Your task to perform on an android device: install app "Truecaller" Image 0: 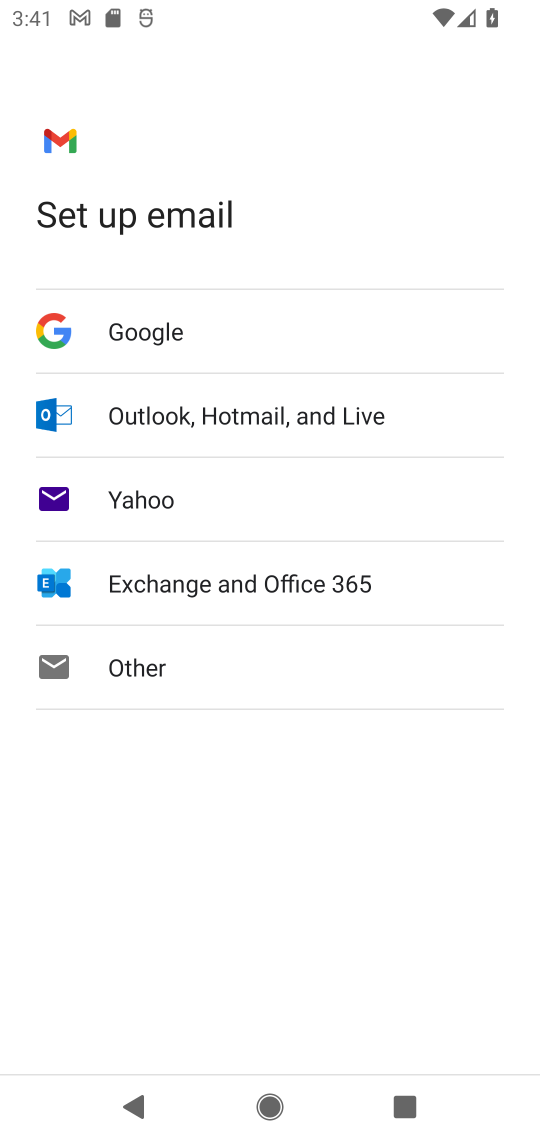
Step 0: press home button
Your task to perform on an android device: install app "Truecaller" Image 1: 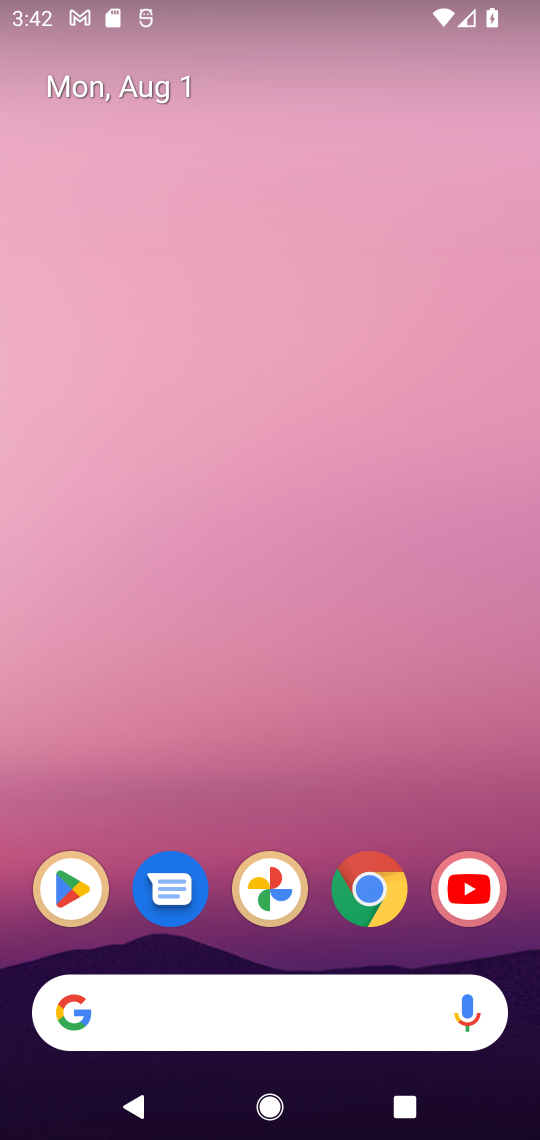
Step 1: click (82, 910)
Your task to perform on an android device: install app "Truecaller" Image 2: 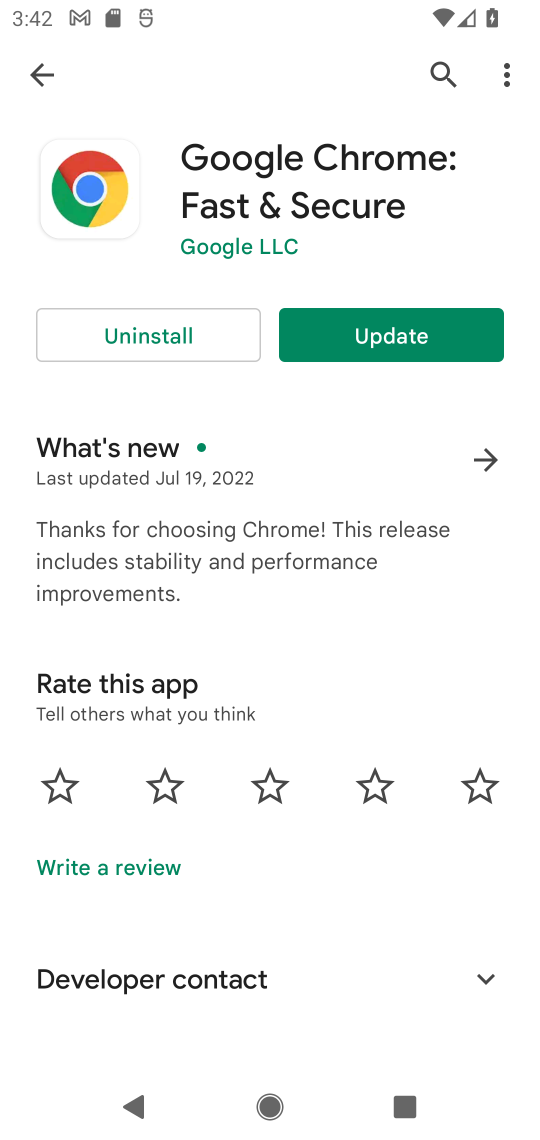
Step 2: click (434, 84)
Your task to perform on an android device: install app "Truecaller" Image 3: 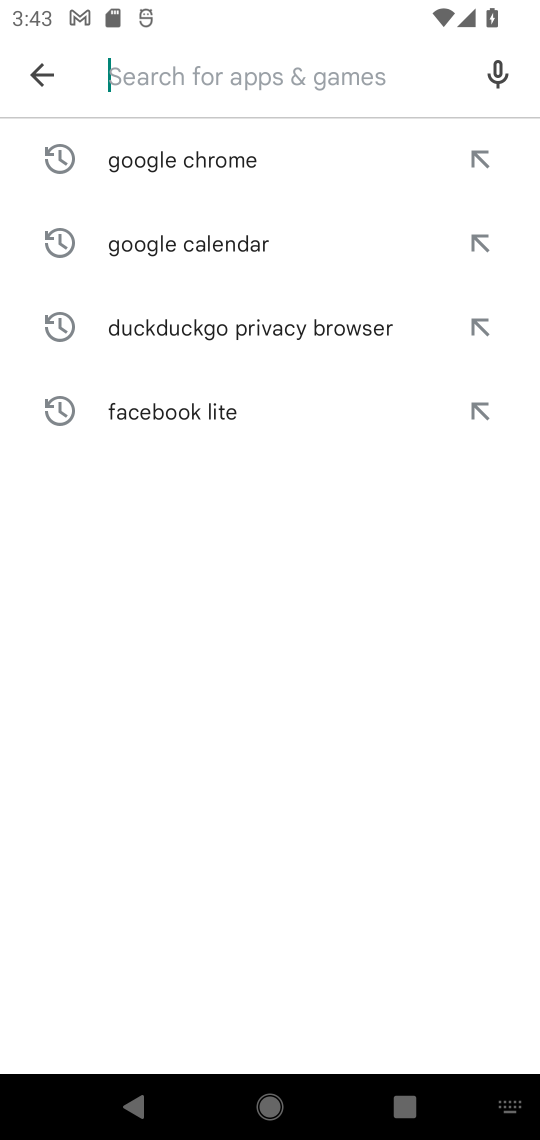
Step 3: type "Truecaller"
Your task to perform on an android device: install app "Truecaller" Image 4: 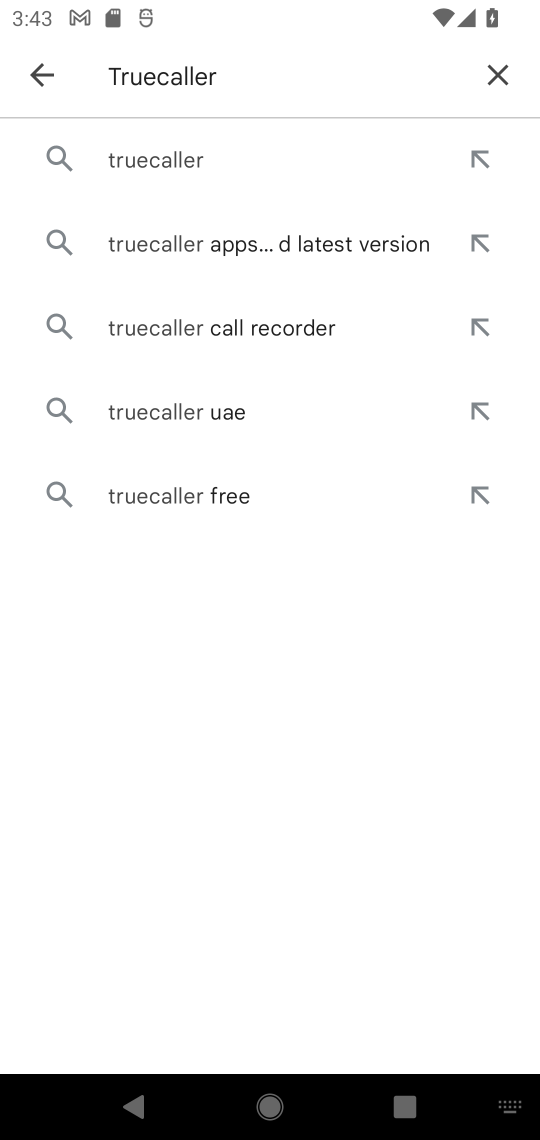
Step 4: click (224, 141)
Your task to perform on an android device: install app "Truecaller" Image 5: 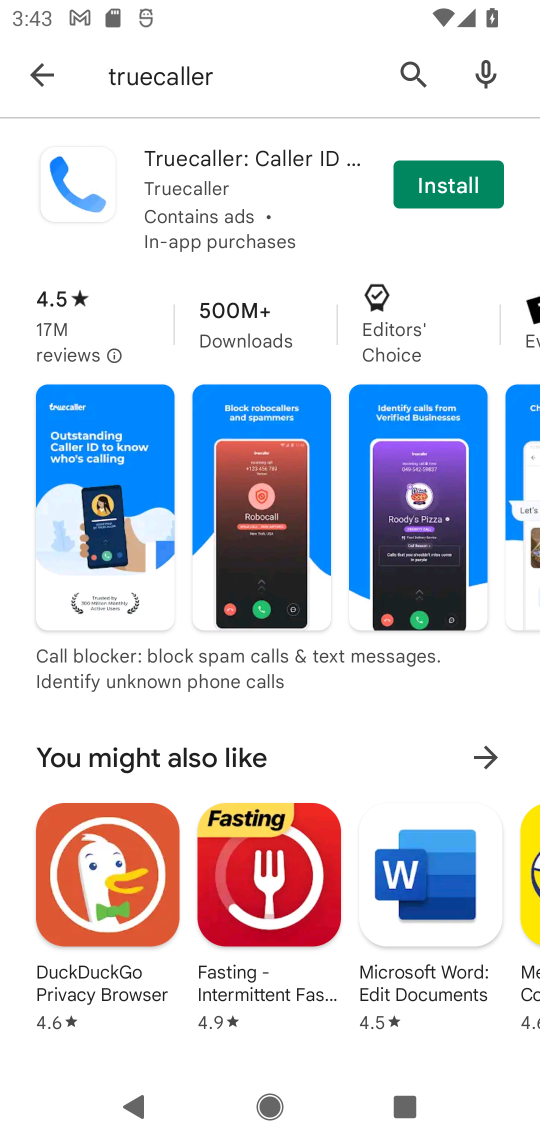
Step 5: click (429, 197)
Your task to perform on an android device: install app "Truecaller" Image 6: 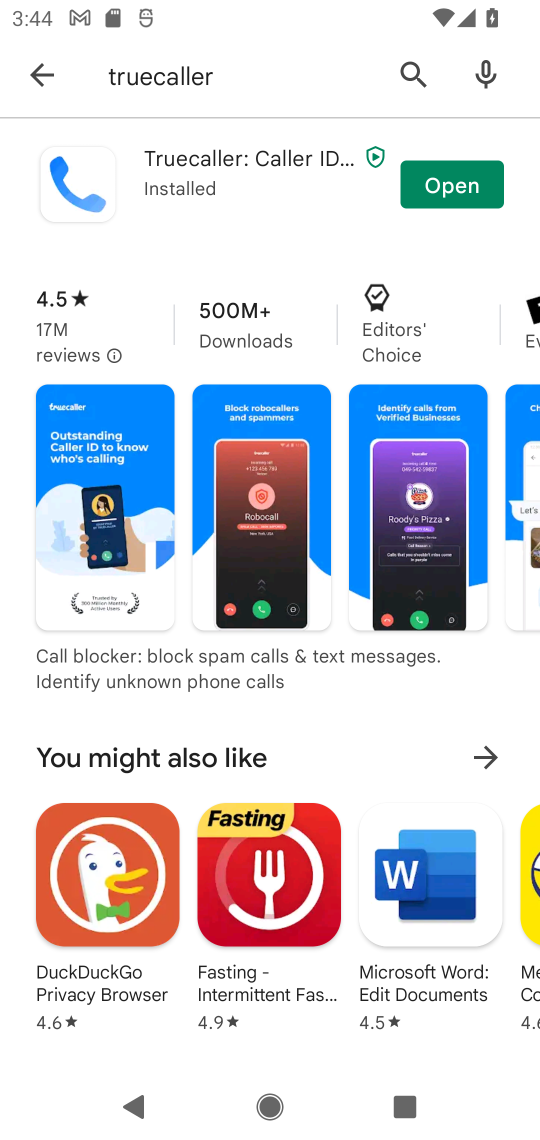
Step 6: task complete